Your task to perform on an android device: Search for Italian restaurants on Maps Image 0: 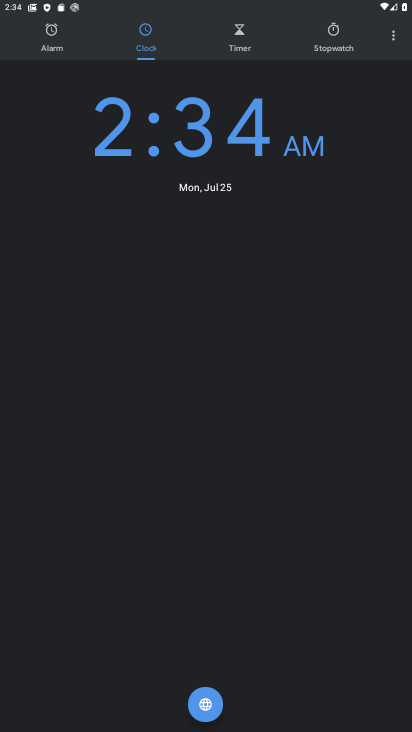
Step 0: press home button
Your task to perform on an android device: Search for Italian restaurants on Maps Image 1: 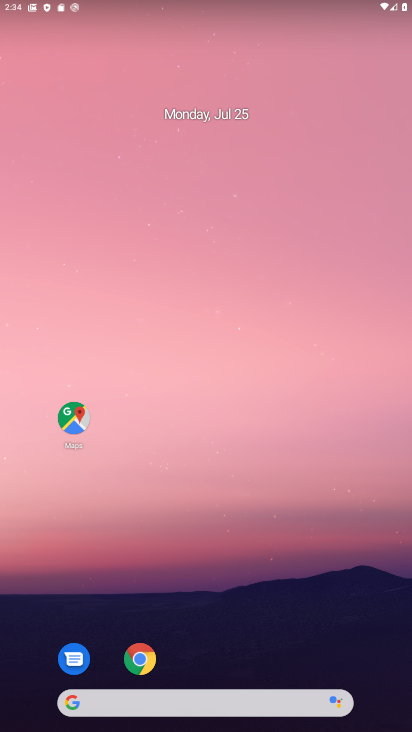
Step 1: click (71, 408)
Your task to perform on an android device: Search for Italian restaurants on Maps Image 2: 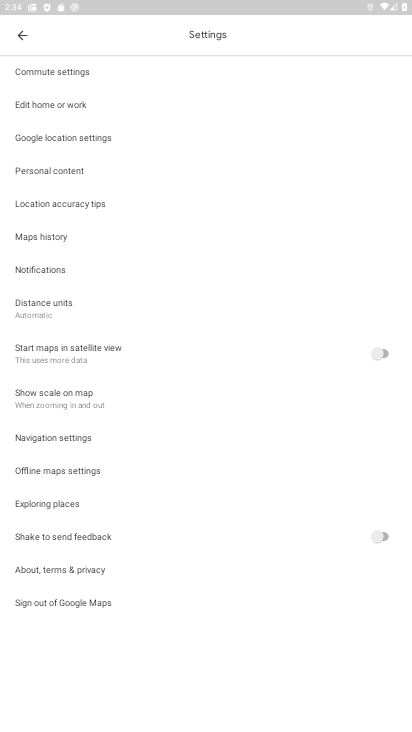
Step 2: click (23, 29)
Your task to perform on an android device: Search for Italian restaurants on Maps Image 3: 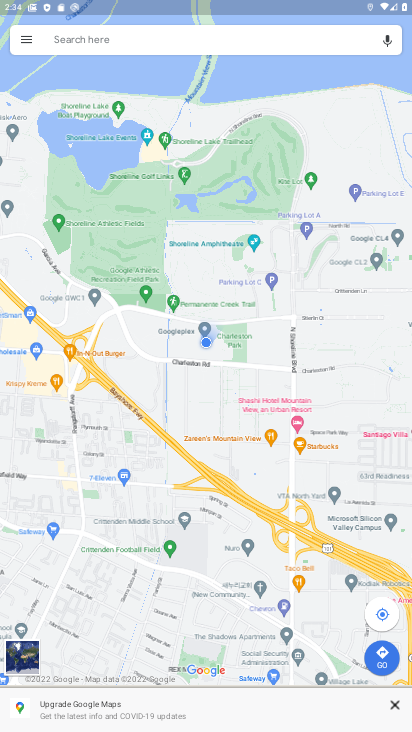
Step 3: click (138, 45)
Your task to perform on an android device: Search for Italian restaurants on Maps Image 4: 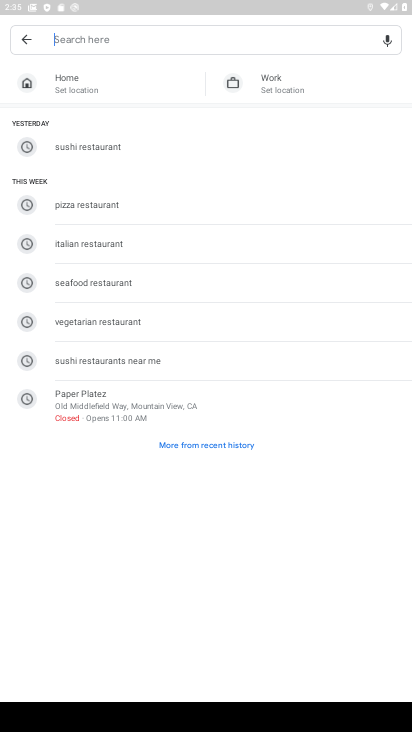
Step 4: click (89, 240)
Your task to perform on an android device: Search for Italian restaurants on Maps Image 5: 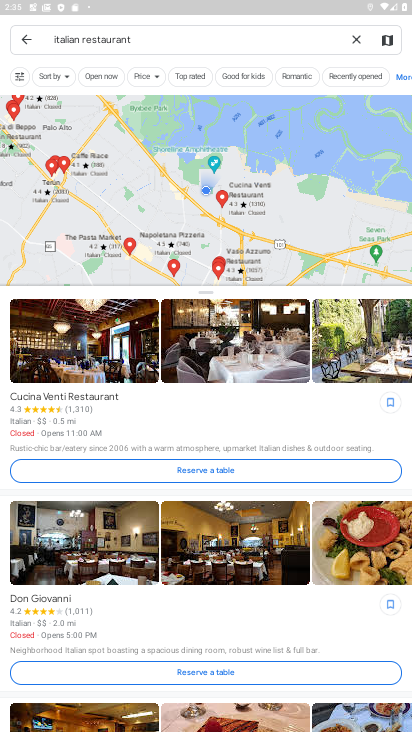
Step 5: task complete